Your task to perform on an android device: toggle airplane mode Image 0: 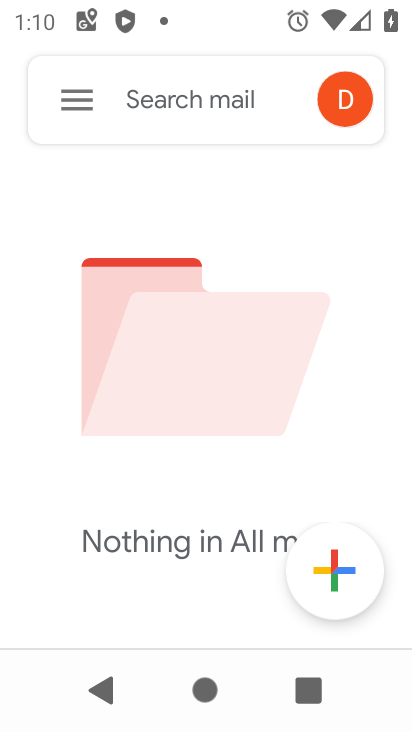
Step 0: press home button
Your task to perform on an android device: toggle airplane mode Image 1: 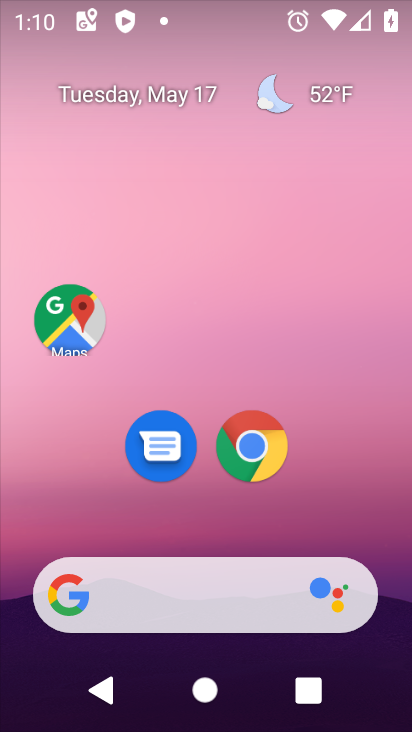
Step 1: drag from (212, 520) to (211, 253)
Your task to perform on an android device: toggle airplane mode Image 2: 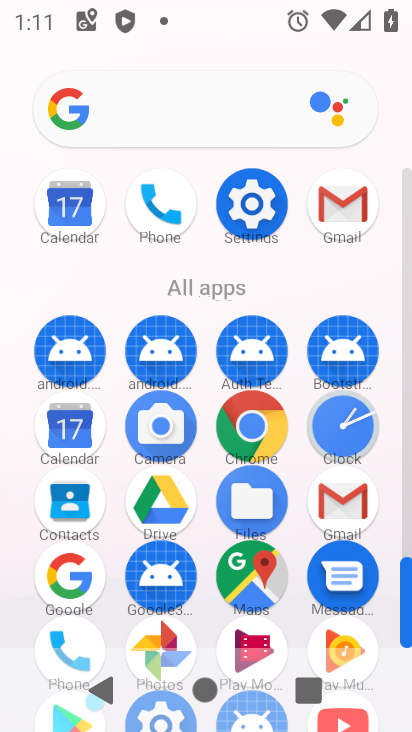
Step 2: click (247, 209)
Your task to perform on an android device: toggle airplane mode Image 3: 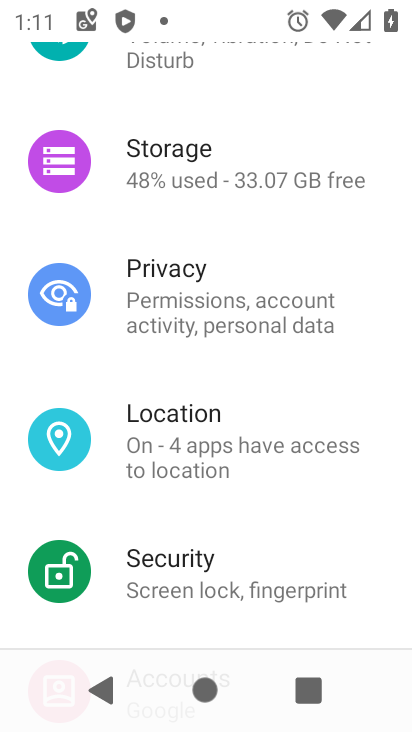
Step 3: drag from (256, 131) to (289, 441)
Your task to perform on an android device: toggle airplane mode Image 4: 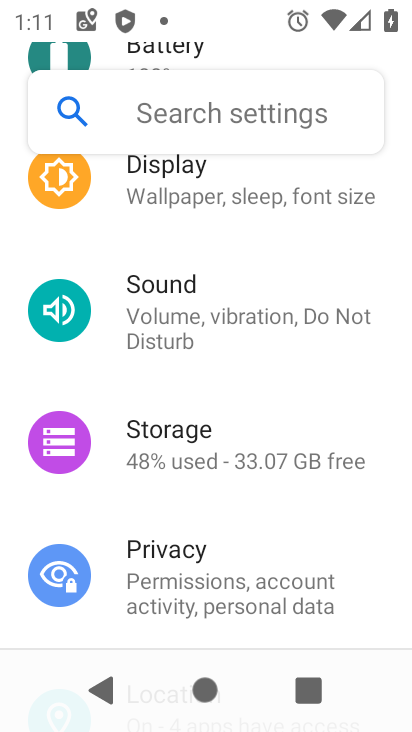
Step 4: drag from (232, 156) to (276, 434)
Your task to perform on an android device: toggle airplane mode Image 5: 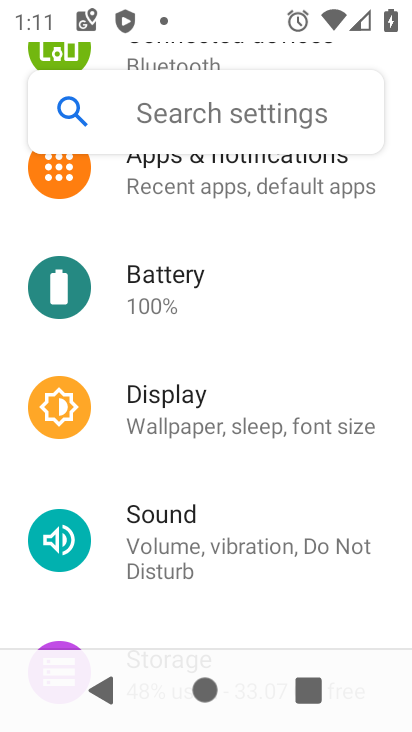
Step 5: drag from (229, 223) to (278, 527)
Your task to perform on an android device: toggle airplane mode Image 6: 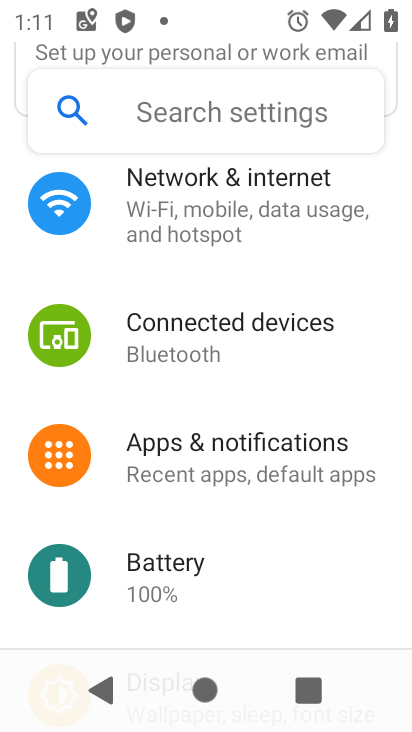
Step 6: drag from (233, 189) to (241, 386)
Your task to perform on an android device: toggle airplane mode Image 7: 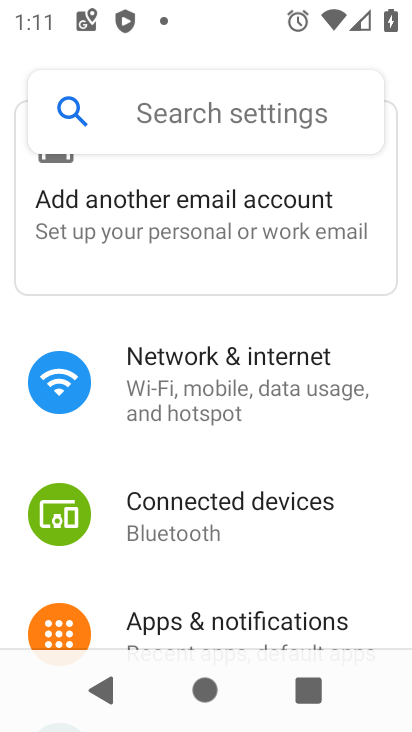
Step 7: click (212, 378)
Your task to perform on an android device: toggle airplane mode Image 8: 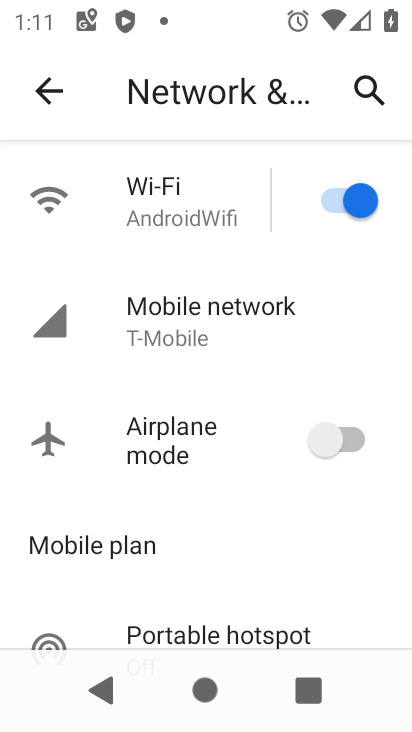
Step 8: click (349, 426)
Your task to perform on an android device: toggle airplane mode Image 9: 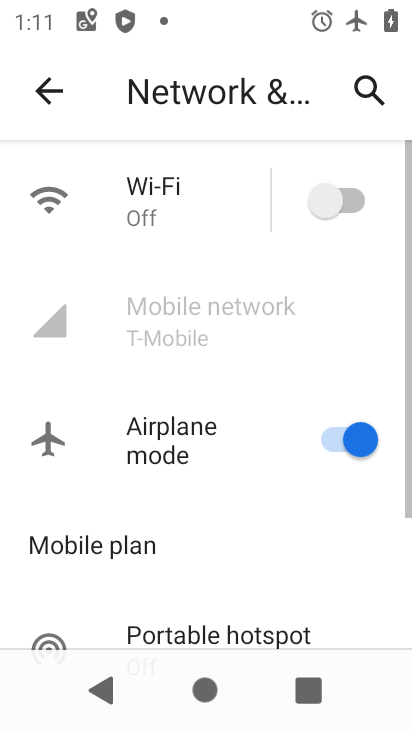
Step 9: task complete